Your task to perform on an android device: show emergency info Image 0: 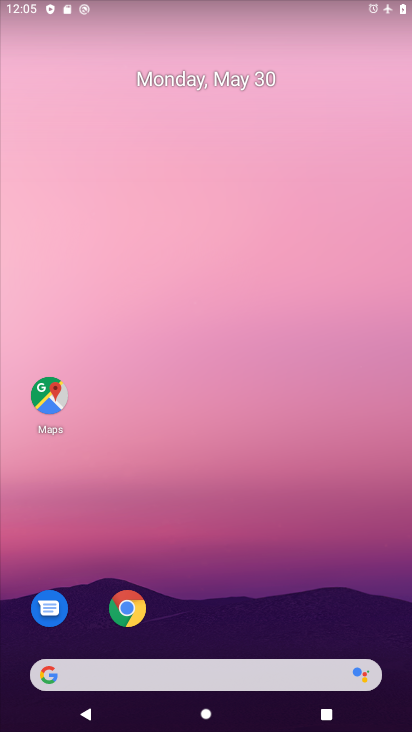
Step 0: drag from (228, 654) to (221, 126)
Your task to perform on an android device: show emergency info Image 1: 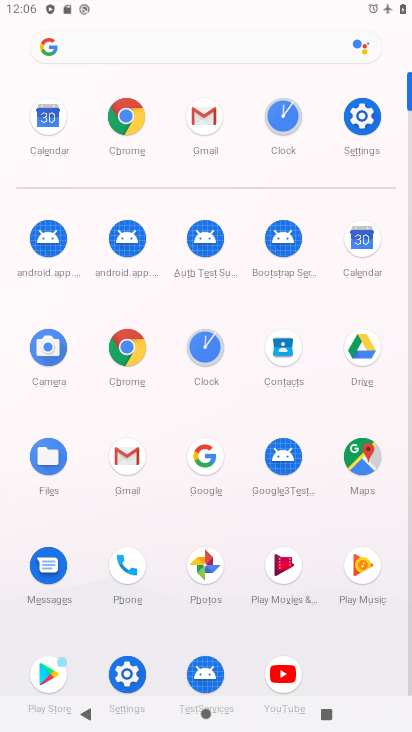
Step 1: click (116, 673)
Your task to perform on an android device: show emergency info Image 2: 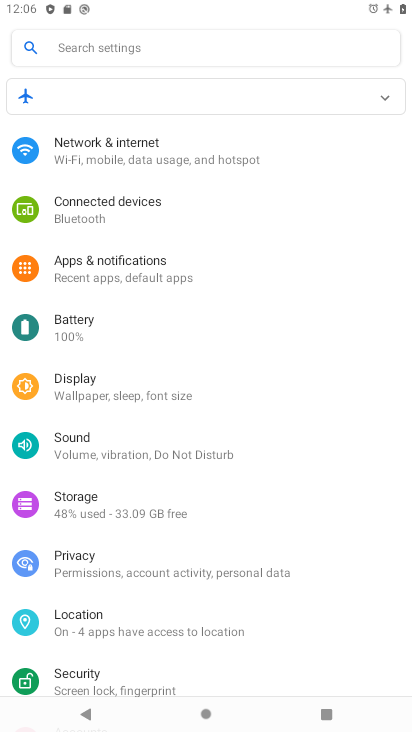
Step 2: drag from (185, 633) to (101, 105)
Your task to perform on an android device: show emergency info Image 3: 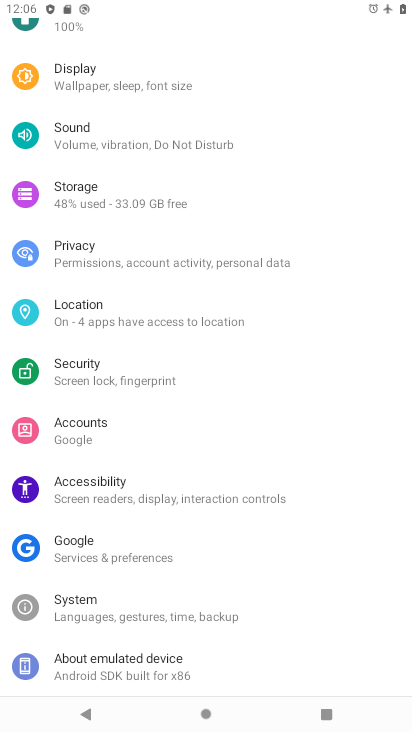
Step 3: click (91, 652)
Your task to perform on an android device: show emergency info Image 4: 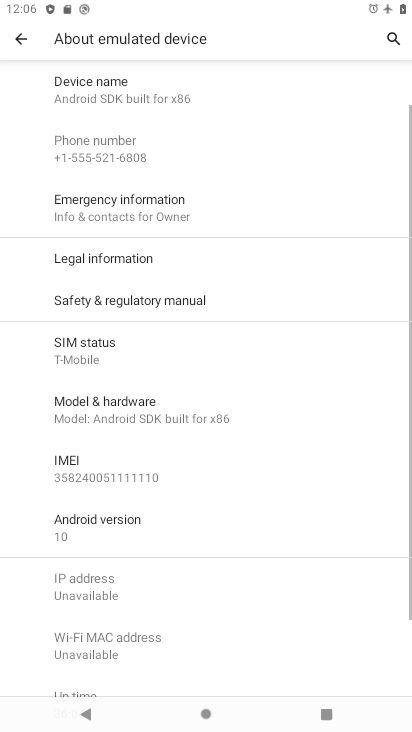
Step 4: click (99, 206)
Your task to perform on an android device: show emergency info Image 5: 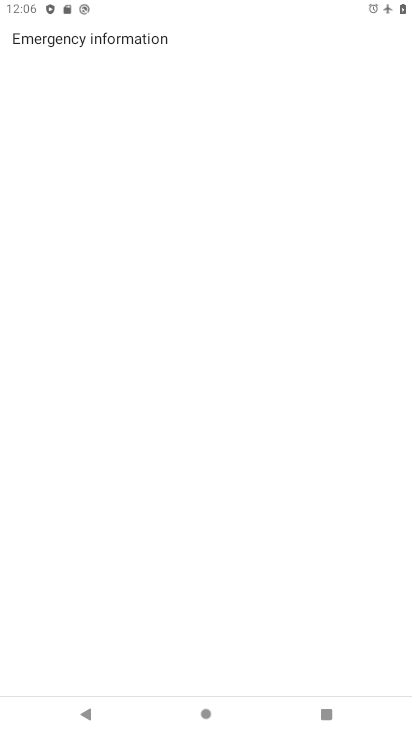
Step 5: task complete